Your task to perform on an android device: Open Yahoo.com Image 0: 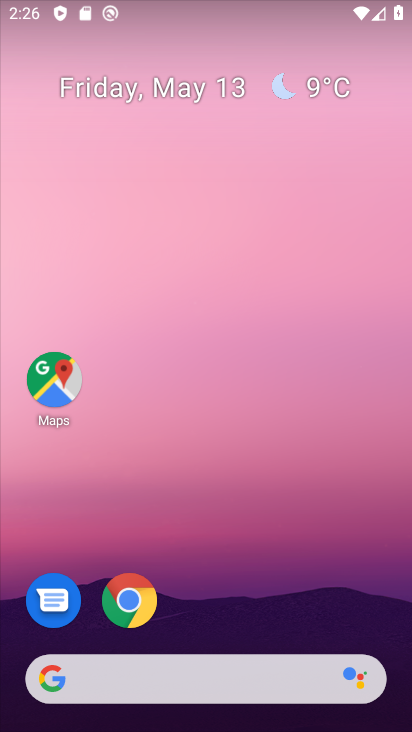
Step 0: click (135, 601)
Your task to perform on an android device: Open Yahoo.com Image 1: 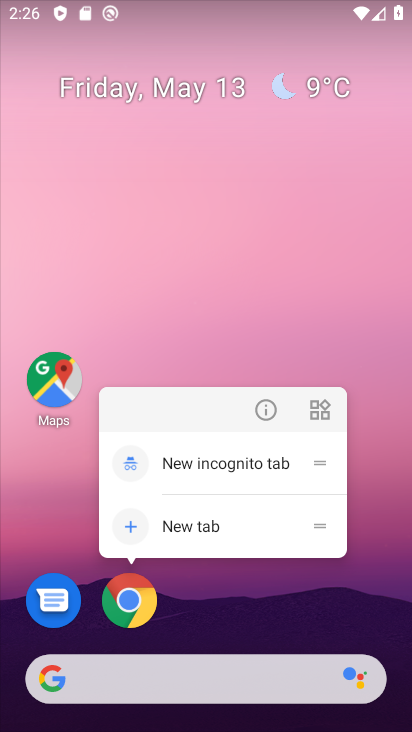
Step 1: click (146, 585)
Your task to perform on an android device: Open Yahoo.com Image 2: 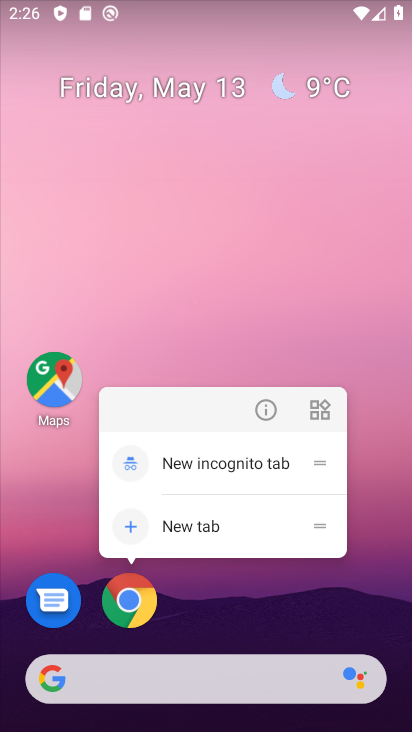
Step 2: click (128, 595)
Your task to perform on an android device: Open Yahoo.com Image 3: 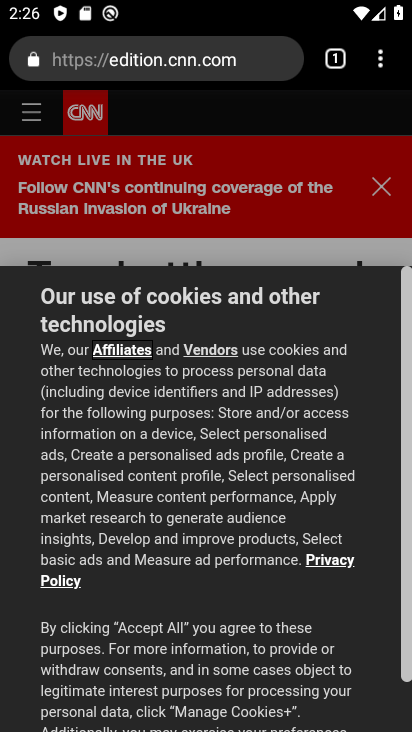
Step 3: click (198, 52)
Your task to perform on an android device: Open Yahoo.com Image 4: 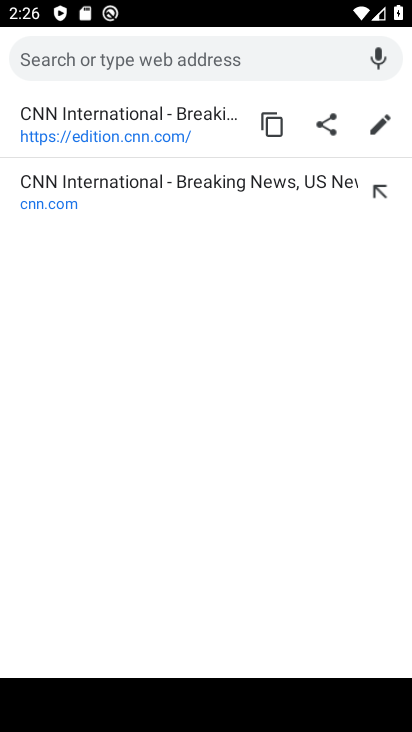
Step 4: type "yahoo.com"
Your task to perform on an android device: Open Yahoo.com Image 5: 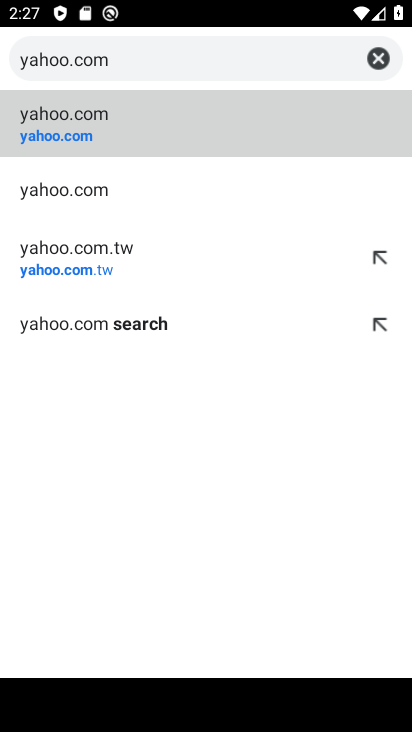
Step 5: click (98, 115)
Your task to perform on an android device: Open Yahoo.com Image 6: 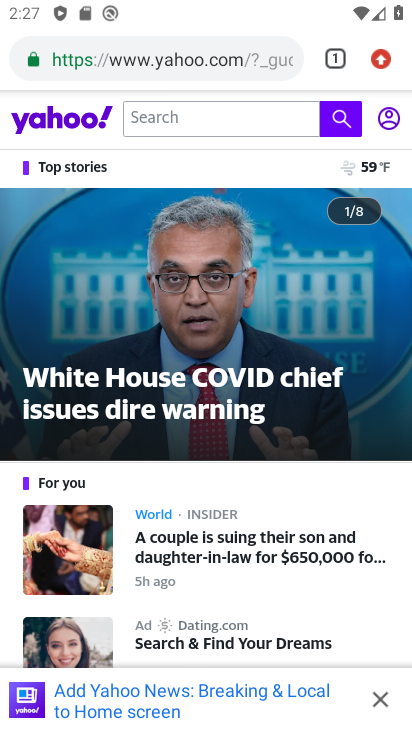
Step 6: task complete